Your task to perform on an android device: Do I have any events tomorrow? Image 0: 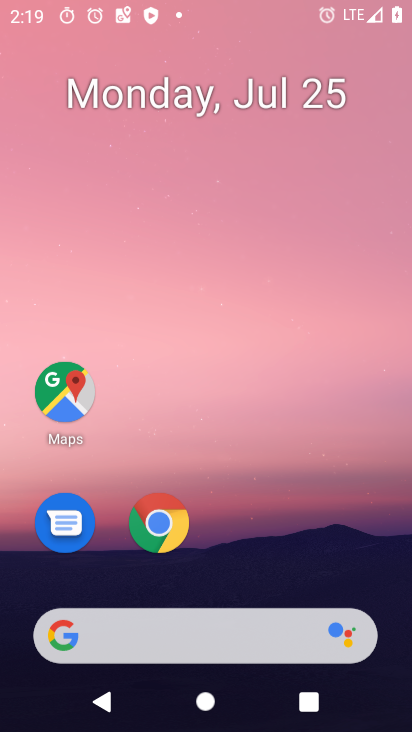
Step 0: press home button
Your task to perform on an android device: Do I have any events tomorrow? Image 1: 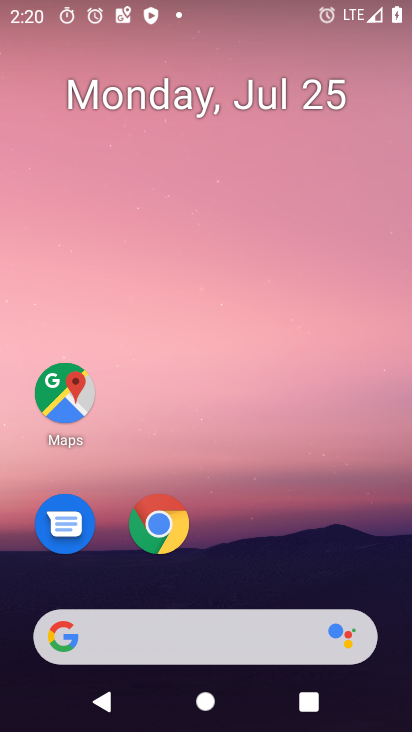
Step 1: drag from (244, 581) to (175, 63)
Your task to perform on an android device: Do I have any events tomorrow? Image 2: 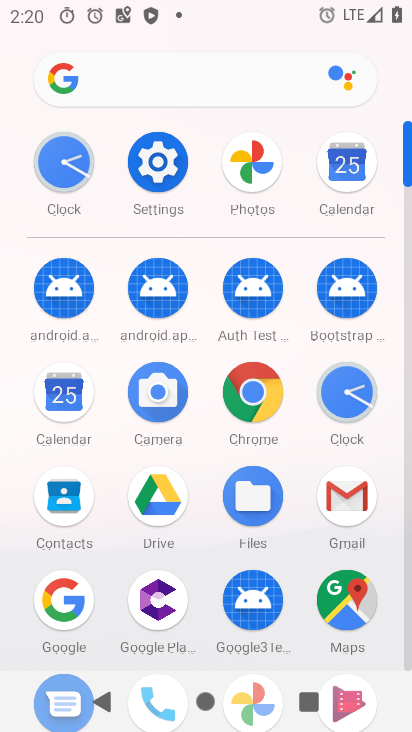
Step 2: click (336, 172)
Your task to perform on an android device: Do I have any events tomorrow? Image 3: 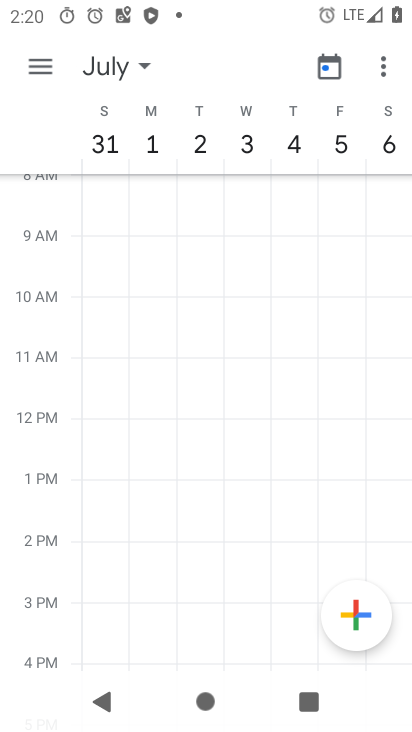
Step 3: click (141, 68)
Your task to perform on an android device: Do I have any events tomorrow? Image 4: 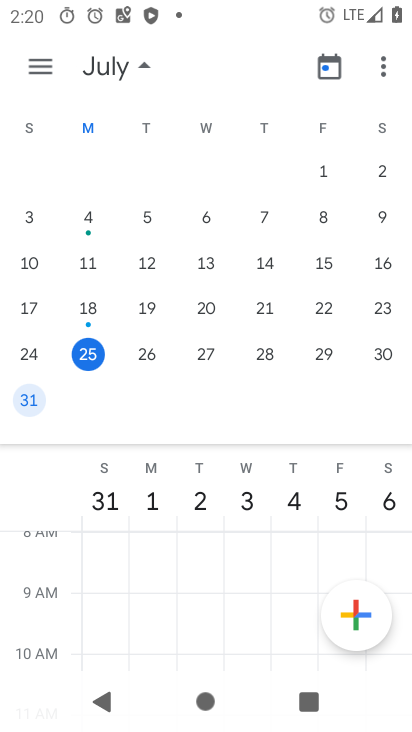
Step 4: click (148, 357)
Your task to perform on an android device: Do I have any events tomorrow? Image 5: 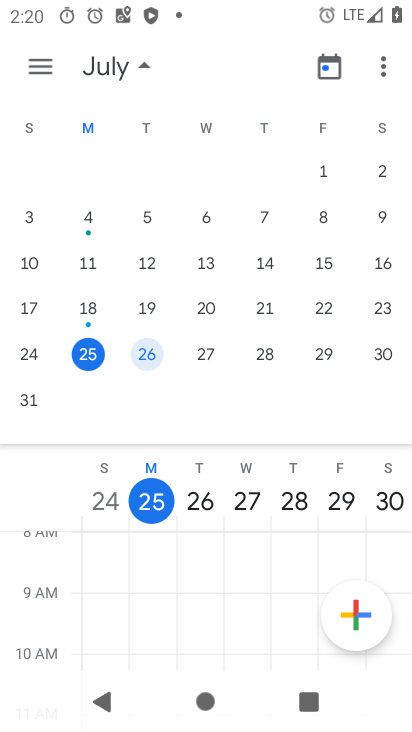
Step 5: task complete